Your task to perform on an android device: Clear all items from cart on newegg. Search for "apple airpods pro" on newegg, select the first entry, add it to the cart, then select checkout. Image 0: 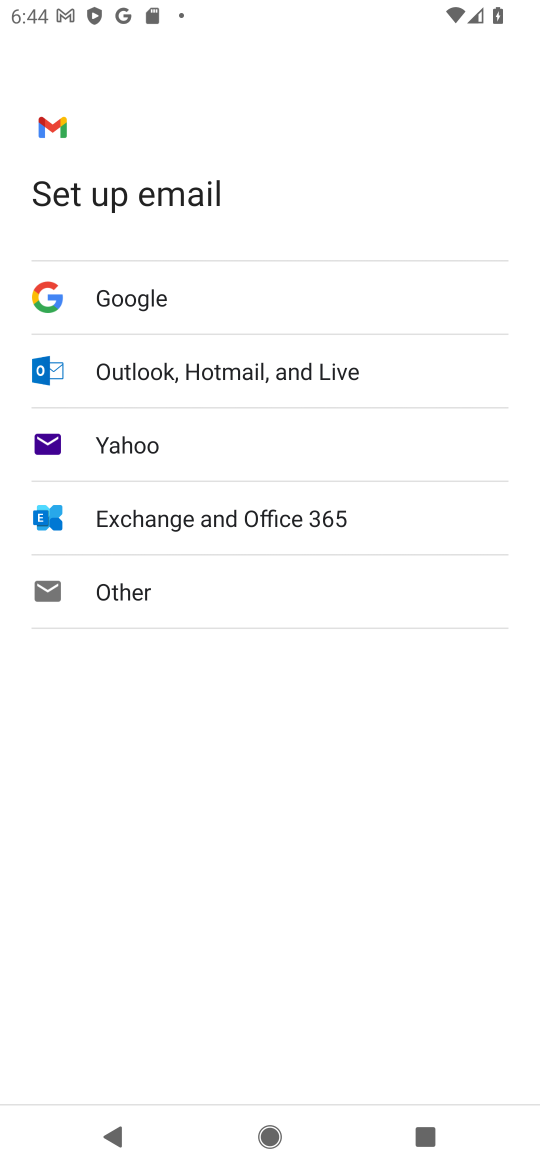
Step 0: press home button
Your task to perform on an android device: Clear all items from cart on newegg. Search for "apple airpods pro" on newegg, select the first entry, add it to the cart, then select checkout. Image 1: 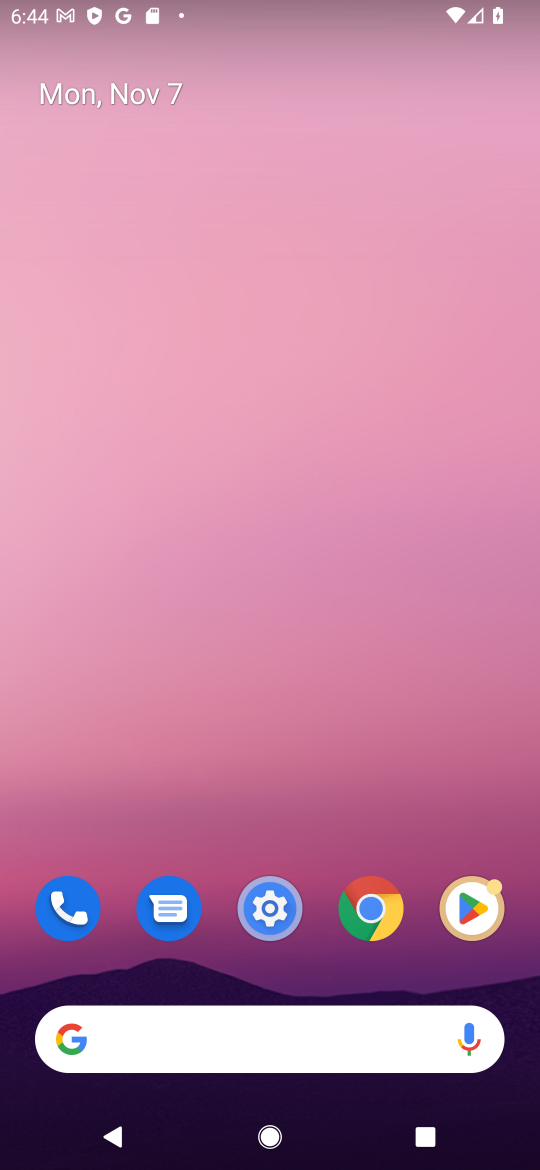
Step 1: click (297, 1053)
Your task to perform on an android device: Clear all items from cart on newegg. Search for "apple airpods pro" on newegg, select the first entry, add it to the cart, then select checkout. Image 2: 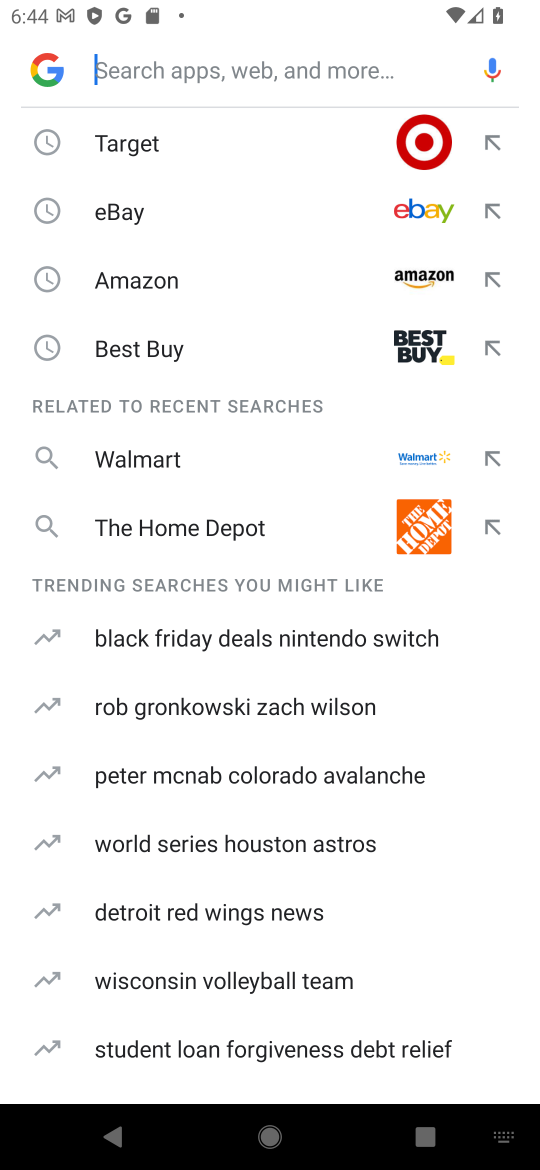
Step 2: type "newegg"
Your task to perform on an android device: Clear all items from cart on newegg. Search for "apple airpods pro" on newegg, select the first entry, add it to the cart, then select checkout. Image 3: 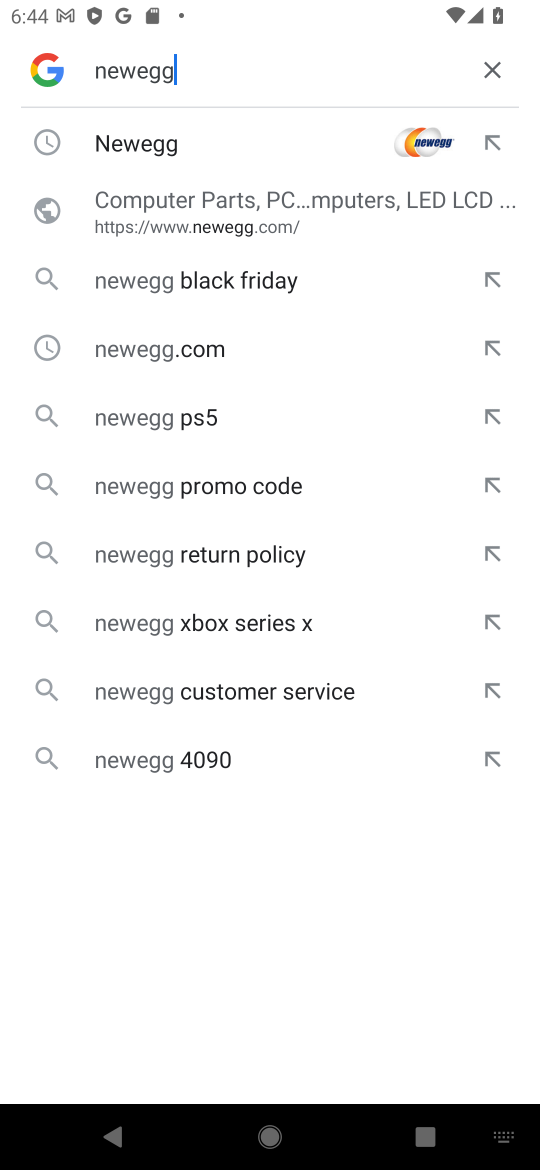
Step 3: click (110, 127)
Your task to perform on an android device: Clear all items from cart on newegg. Search for "apple airpods pro" on newegg, select the first entry, add it to the cart, then select checkout. Image 4: 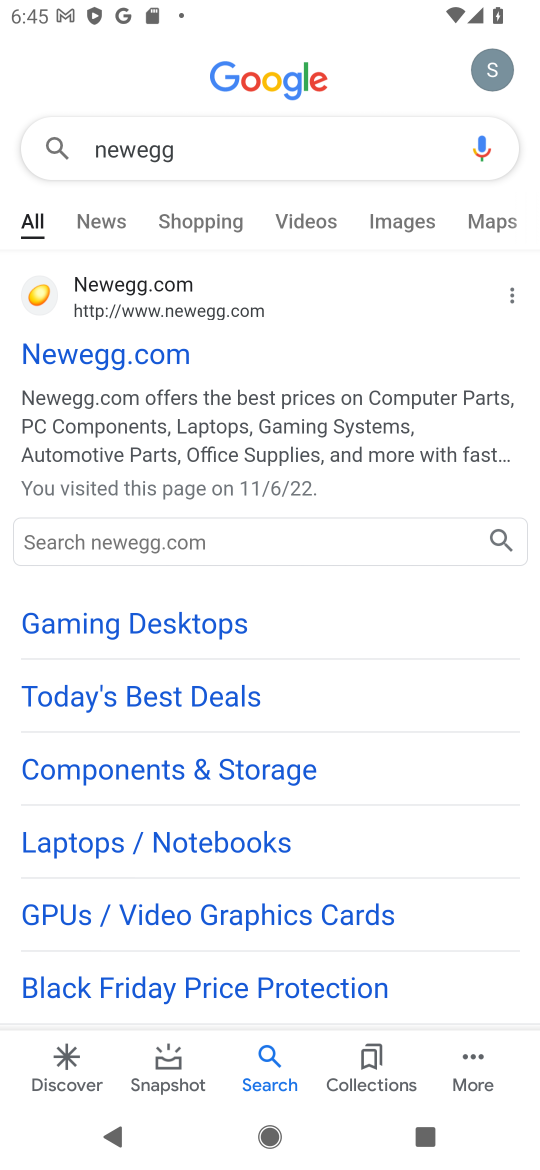
Step 4: click (157, 367)
Your task to perform on an android device: Clear all items from cart on newegg. Search for "apple airpods pro" on newegg, select the first entry, add it to the cart, then select checkout. Image 5: 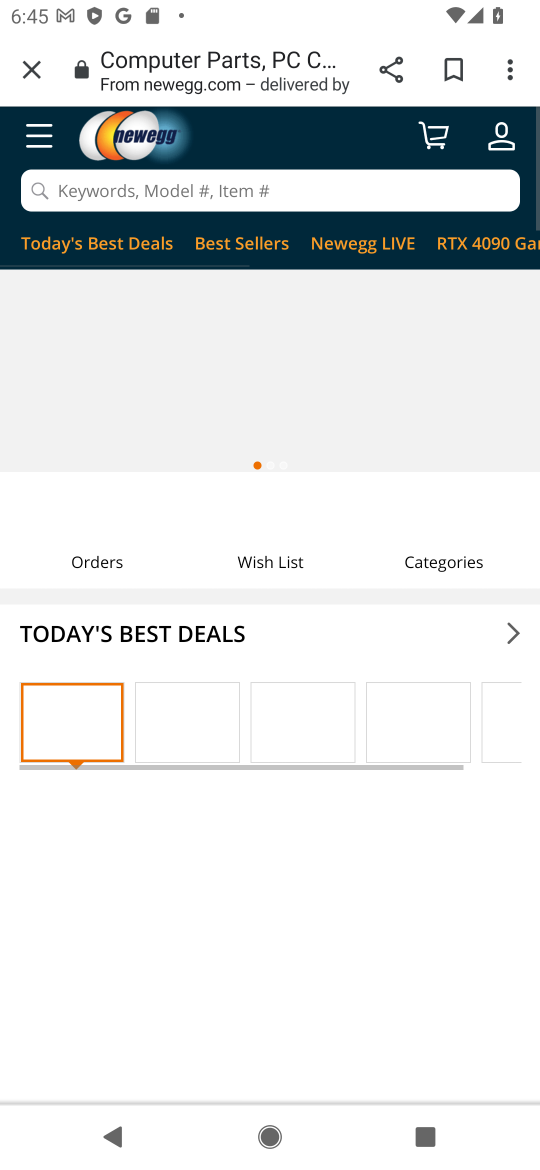
Step 5: task complete